Your task to perform on an android device: Show me productivity apps on the Play Store Image 0: 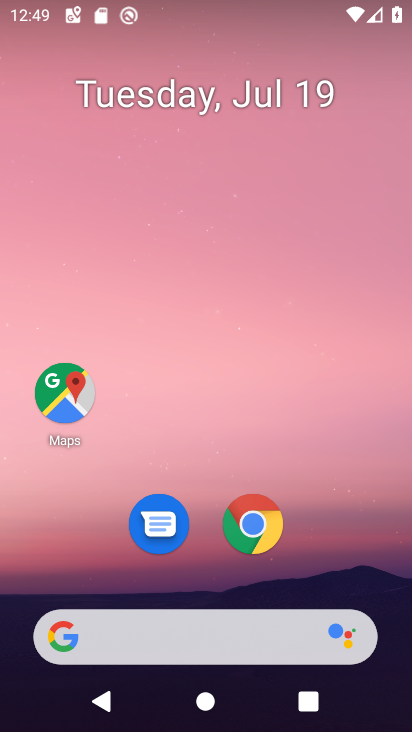
Step 0: drag from (321, 495) to (277, 88)
Your task to perform on an android device: Show me productivity apps on the Play Store Image 1: 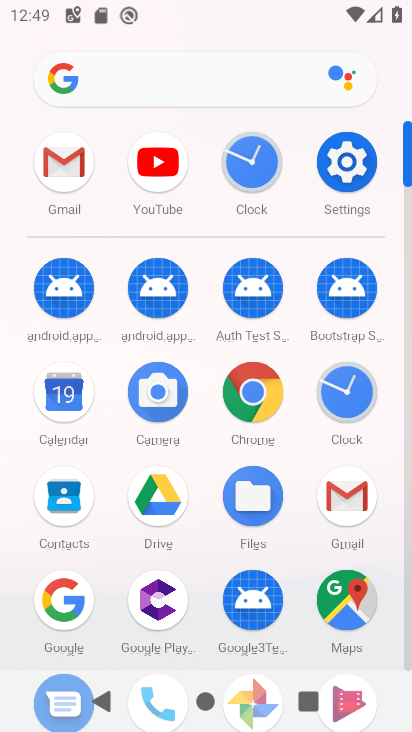
Step 1: drag from (215, 396) to (201, 148)
Your task to perform on an android device: Show me productivity apps on the Play Store Image 2: 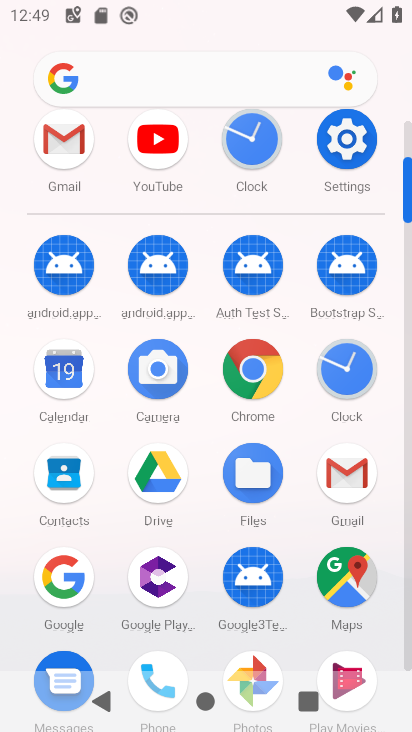
Step 2: drag from (215, 510) to (182, 191)
Your task to perform on an android device: Show me productivity apps on the Play Store Image 3: 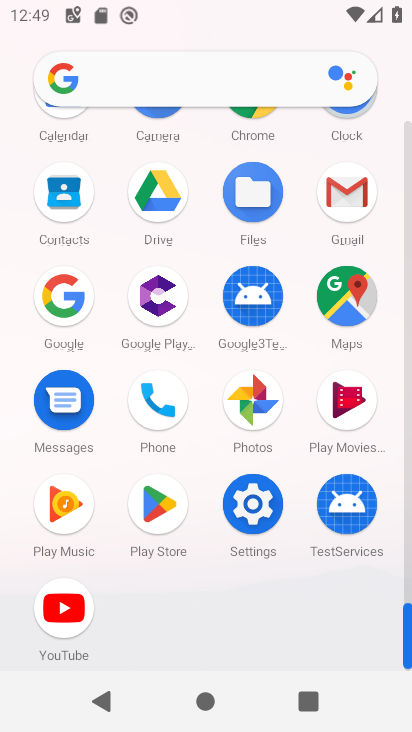
Step 3: click (172, 497)
Your task to perform on an android device: Show me productivity apps on the Play Store Image 4: 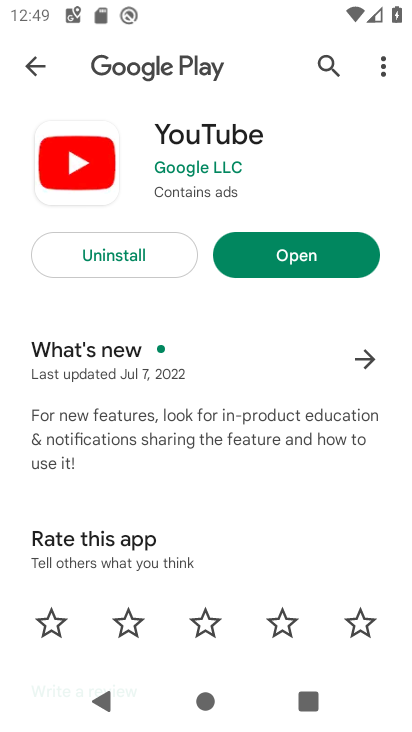
Step 4: click (33, 63)
Your task to perform on an android device: Show me productivity apps on the Play Store Image 5: 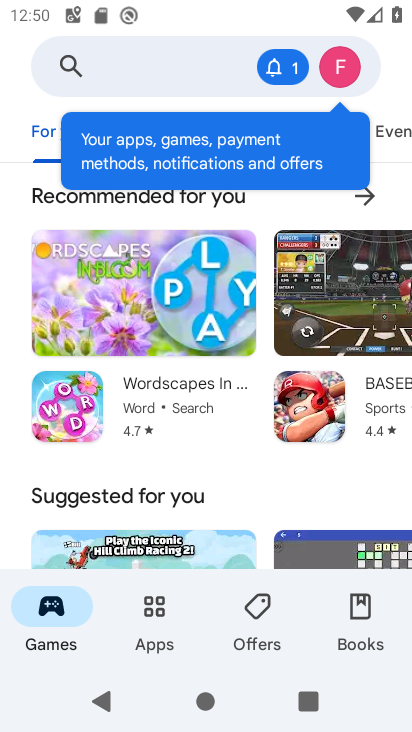
Step 5: click (153, 626)
Your task to perform on an android device: Show me productivity apps on the Play Store Image 6: 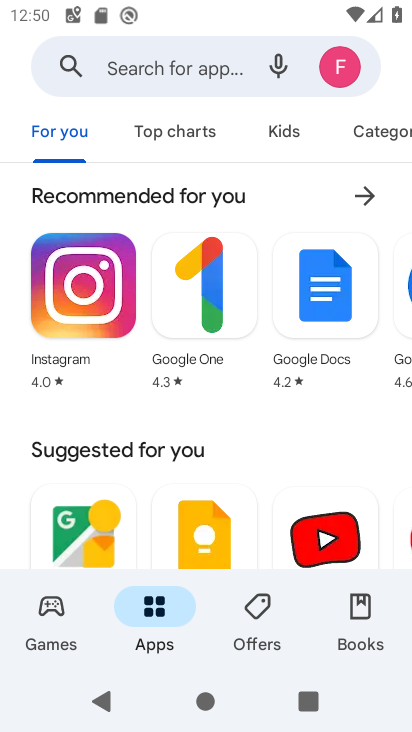
Step 6: click (358, 132)
Your task to perform on an android device: Show me productivity apps on the Play Store Image 7: 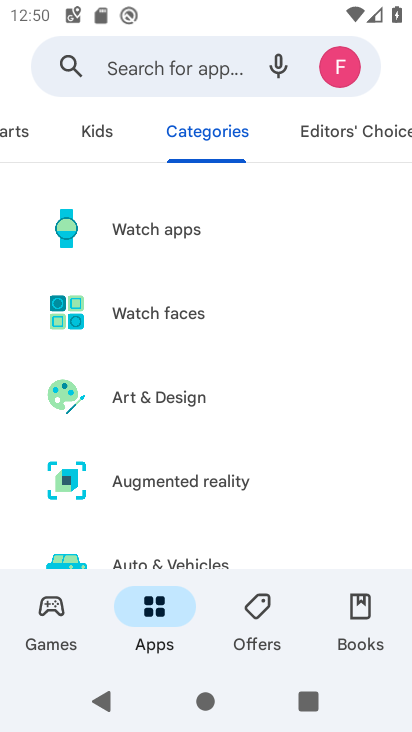
Step 7: drag from (263, 514) to (268, 120)
Your task to perform on an android device: Show me productivity apps on the Play Store Image 8: 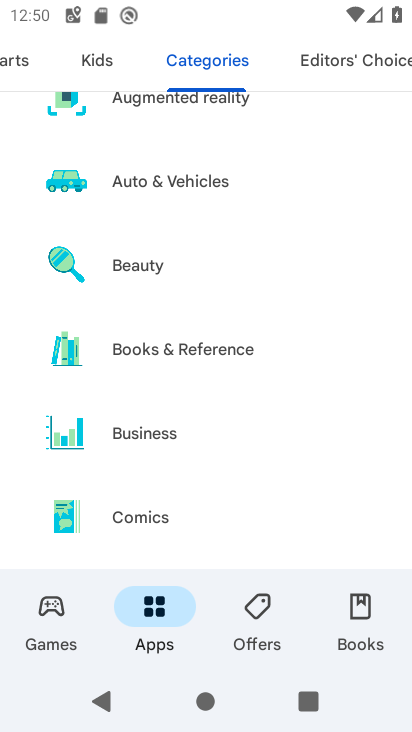
Step 8: drag from (243, 472) to (257, 124)
Your task to perform on an android device: Show me productivity apps on the Play Store Image 9: 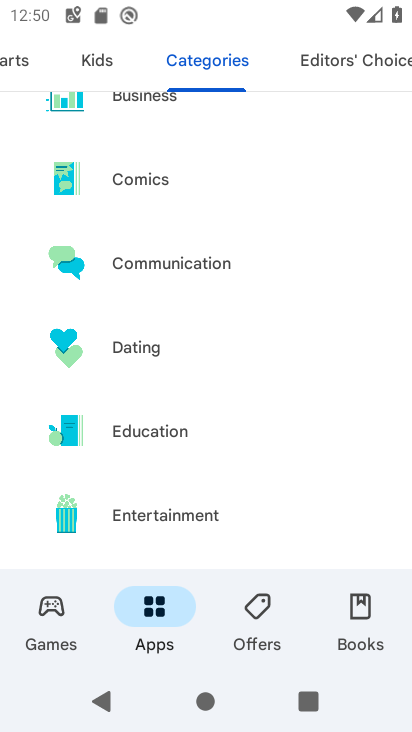
Step 9: drag from (225, 472) to (248, 105)
Your task to perform on an android device: Show me productivity apps on the Play Store Image 10: 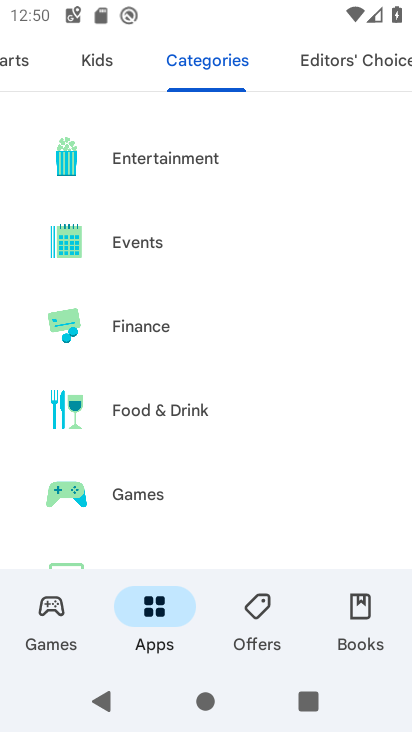
Step 10: drag from (237, 499) to (241, 119)
Your task to perform on an android device: Show me productivity apps on the Play Store Image 11: 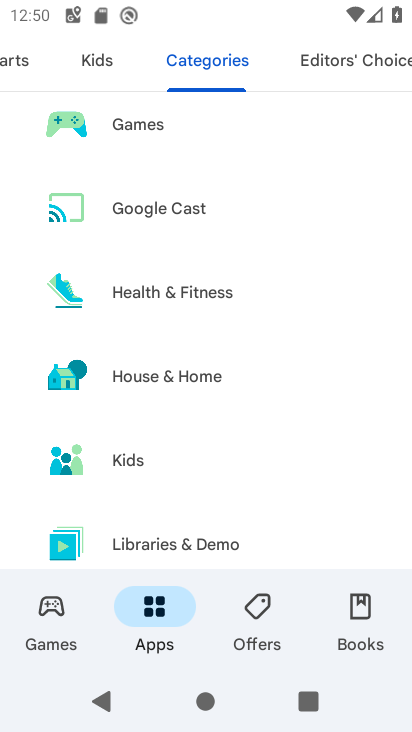
Step 11: drag from (242, 515) to (258, 125)
Your task to perform on an android device: Show me productivity apps on the Play Store Image 12: 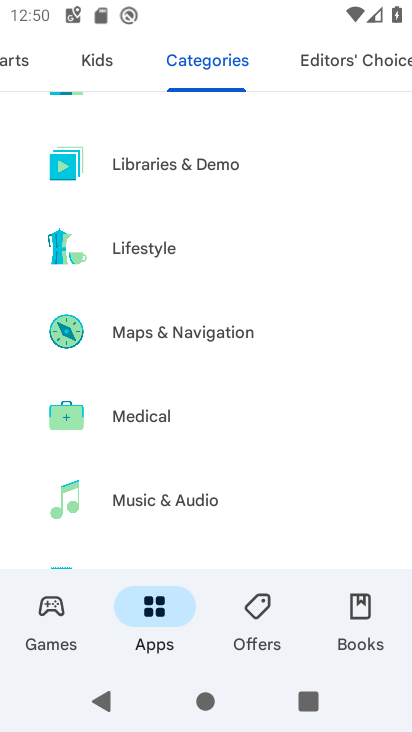
Step 12: drag from (275, 482) to (277, 107)
Your task to perform on an android device: Show me productivity apps on the Play Store Image 13: 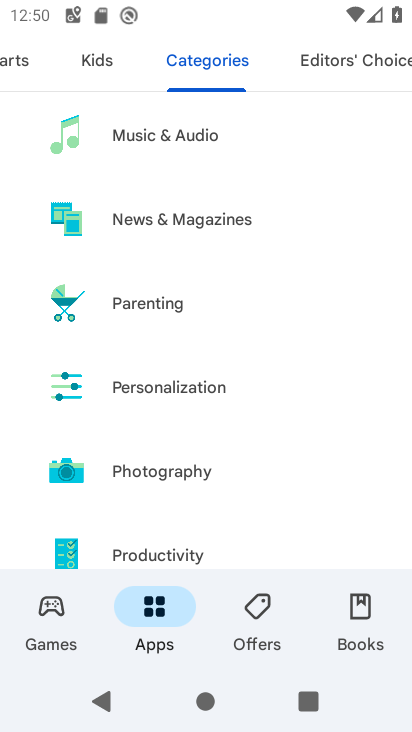
Step 13: drag from (260, 514) to (284, 198)
Your task to perform on an android device: Show me productivity apps on the Play Store Image 14: 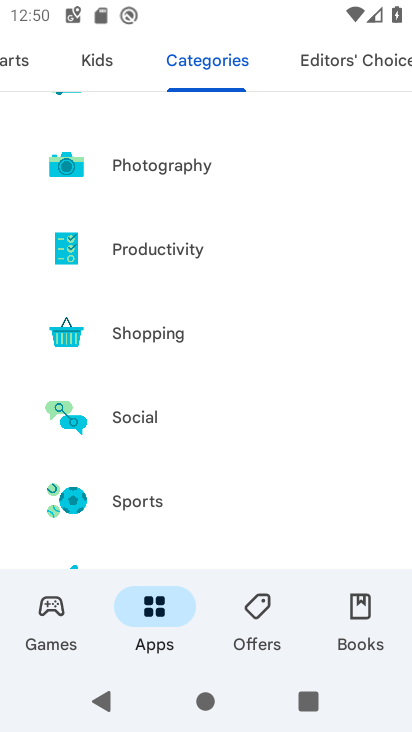
Step 14: click (185, 250)
Your task to perform on an android device: Show me productivity apps on the Play Store Image 15: 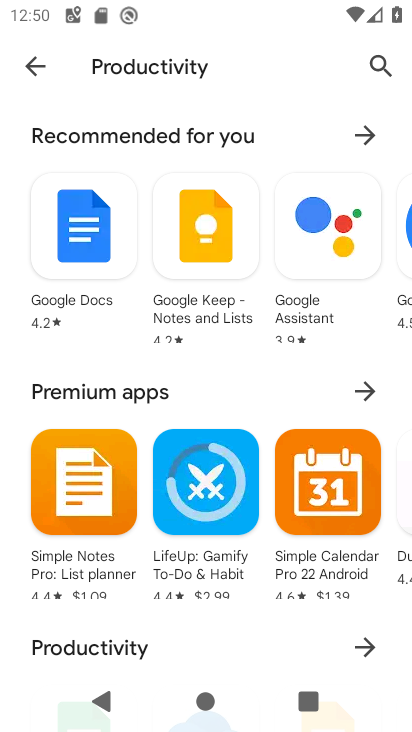
Step 15: click (364, 649)
Your task to perform on an android device: Show me productivity apps on the Play Store Image 16: 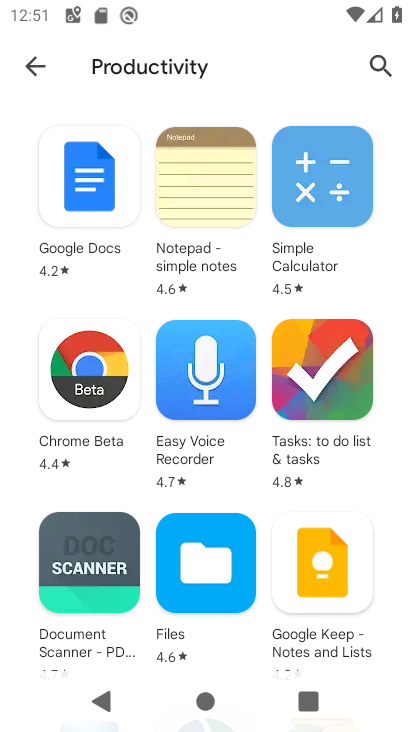
Step 16: task complete